Your task to perform on an android device: Go to Google Image 0: 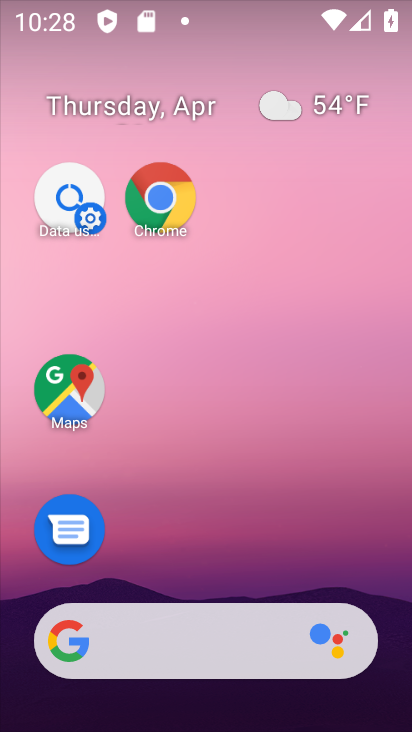
Step 0: drag from (199, 584) to (220, 43)
Your task to perform on an android device: Go to Google Image 1: 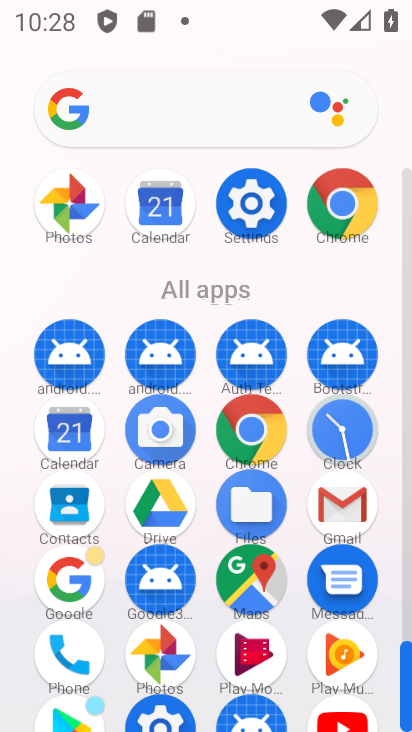
Step 1: click (82, 577)
Your task to perform on an android device: Go to Google Image 2: 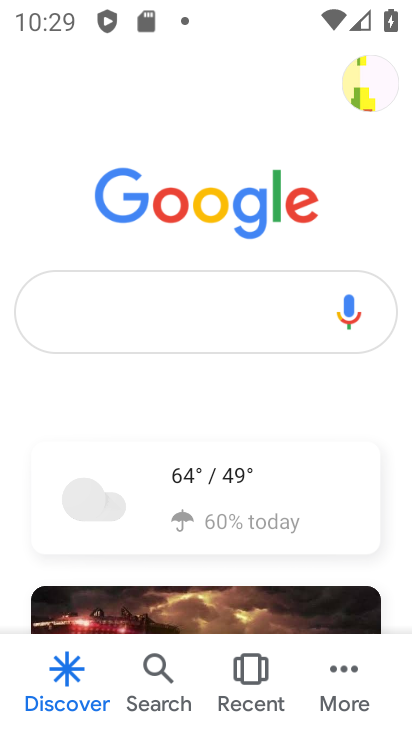
Step 2: task complete